Your task to perform on an android device: Open eBay Image 0: 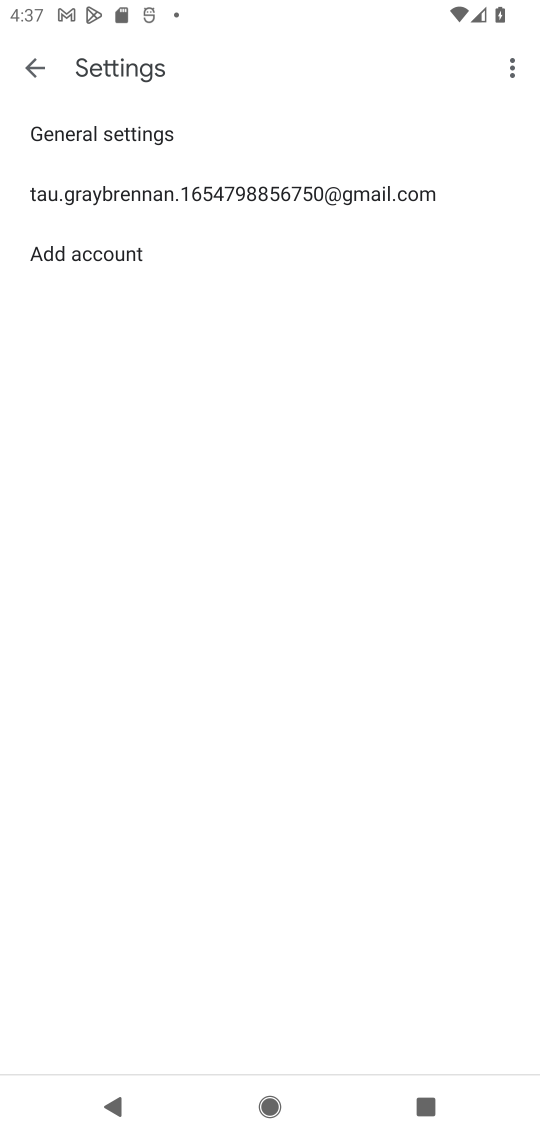
Step 0: press home button
Your task to perform on an android device: Open eBay Image 1: 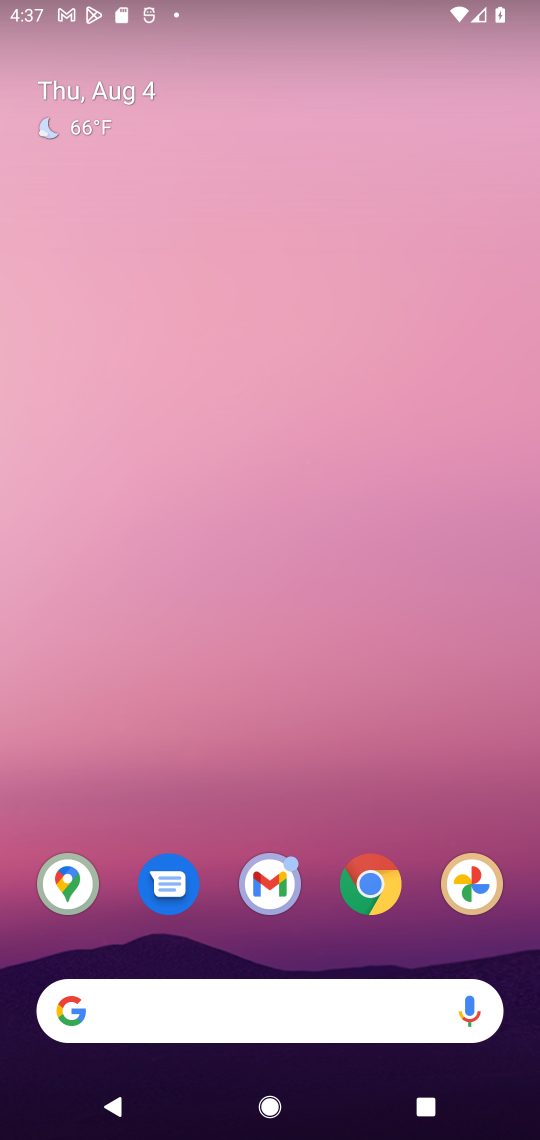
Step 1: click (349, 888)
Your task to perform on an android device: Open eBay Image 2: 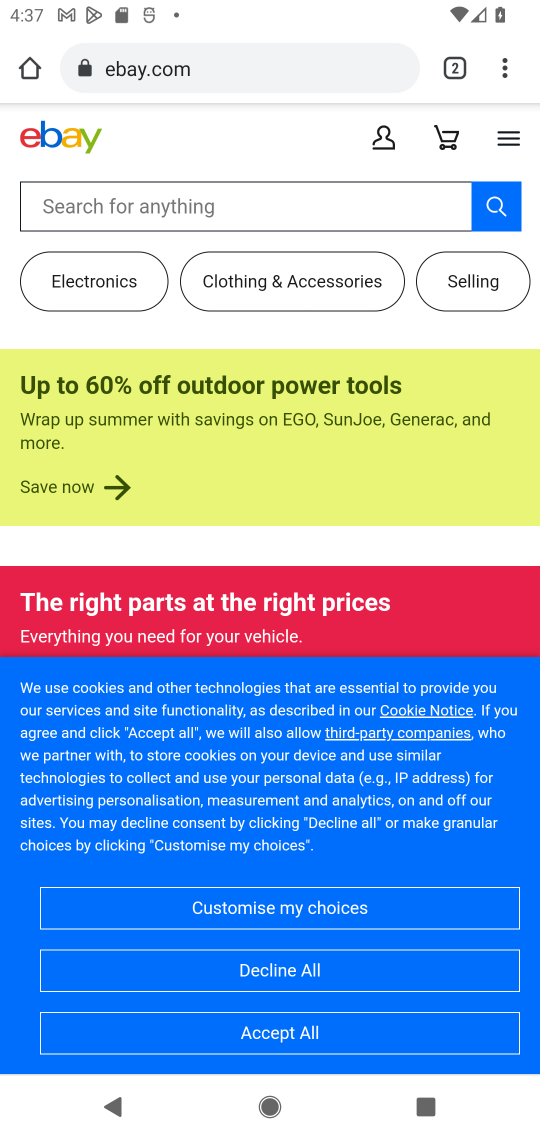
Step 2: click (267, 63)
Your task to perform on an android device: Open eBay Image 3: 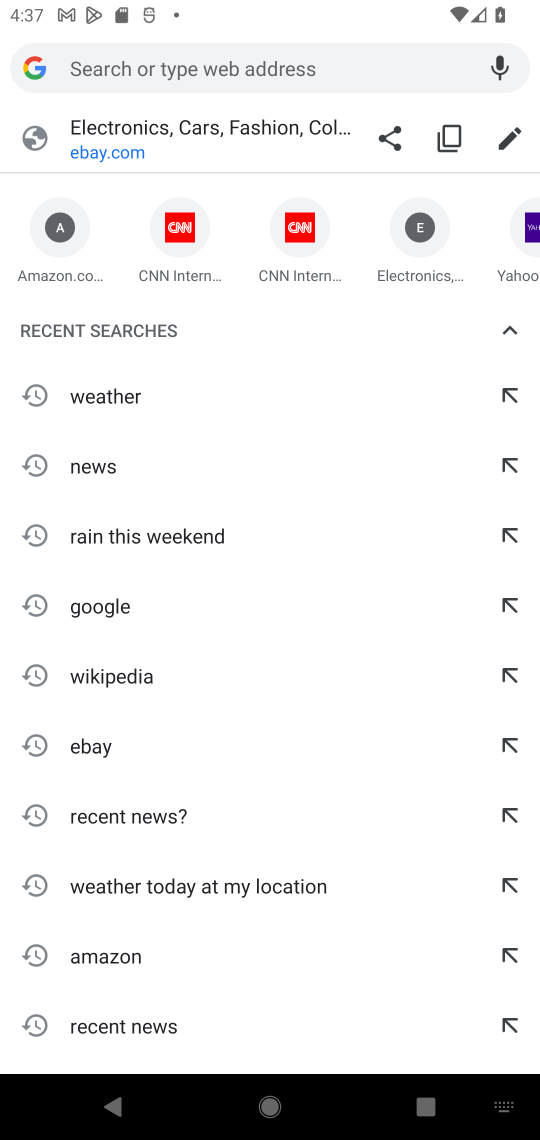
Step 3: click (197, 113)
Your task to perform on an android device: Open eBay Image 4: 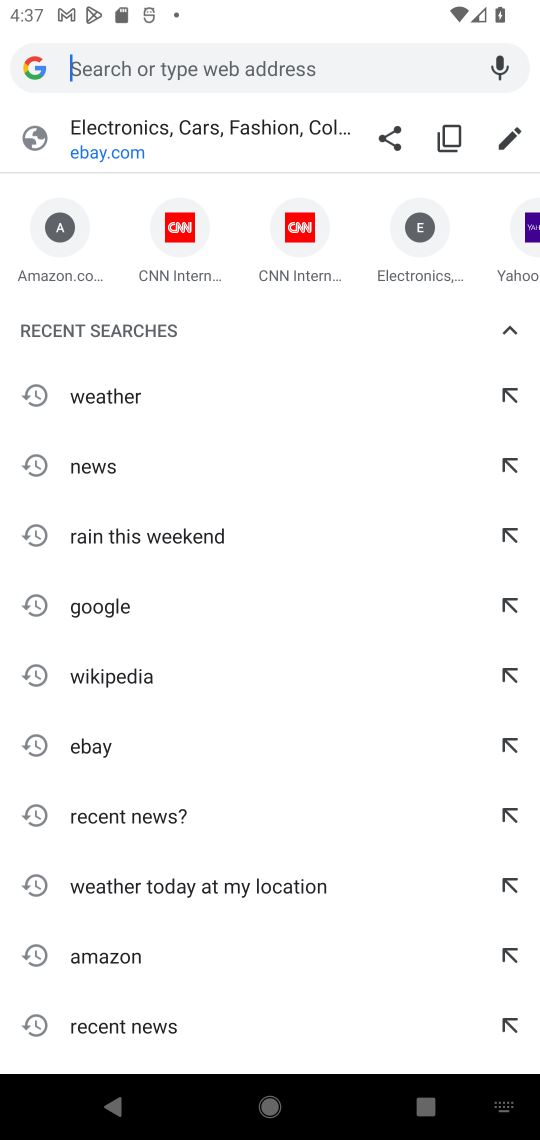
Step 4: click (232, 151)
Your task to perform on an android device: Open eBay Image 5: 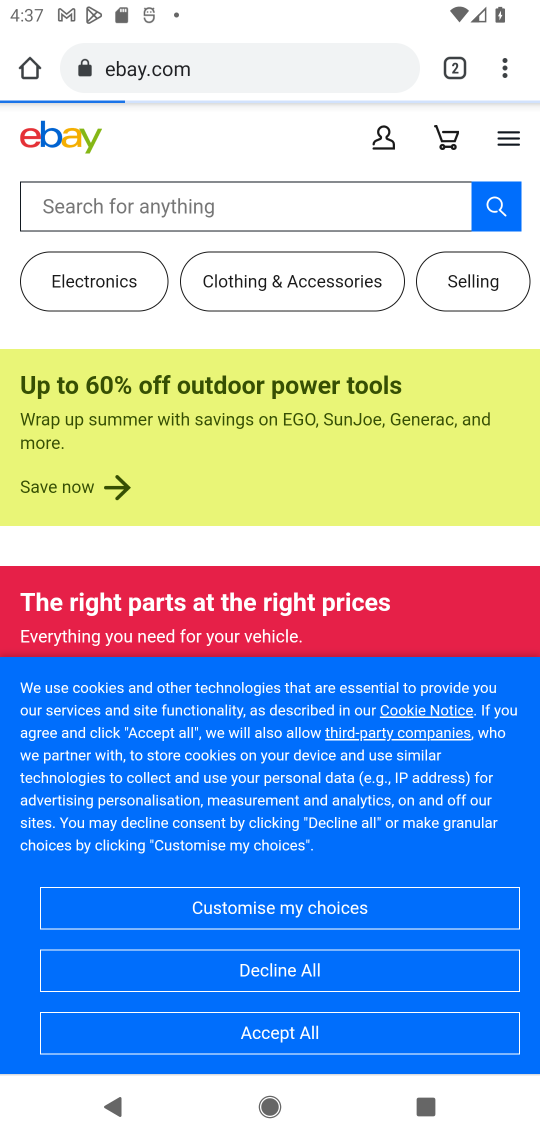
Step 5: task complete